Your task to perform on an android device: Open Youtube and go to the subscriptions tab Image 0: 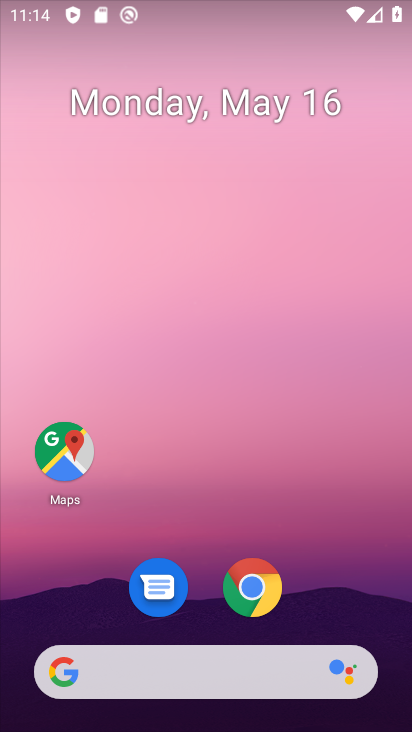
Step 0: drag from (377, 644) to (331, 71)
Your task to perform on an android device: Open Youtube and go to the subscriptions tab Image 1: 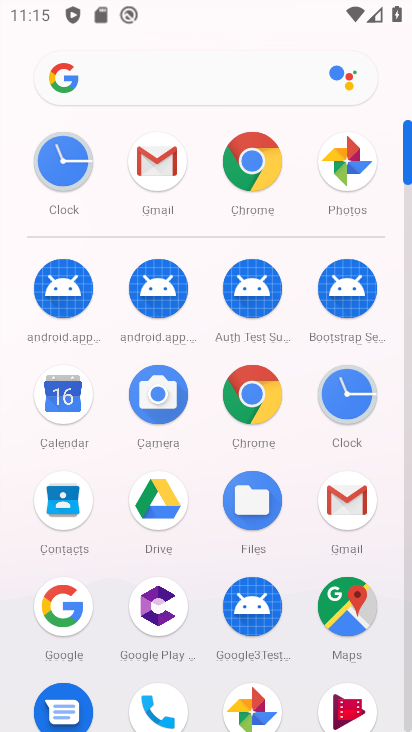
Step 1: drag from (319, 636) to (365, 66)
Your task to perform on an android device: Open Youtube and go to the subscriptions tab Image 2: 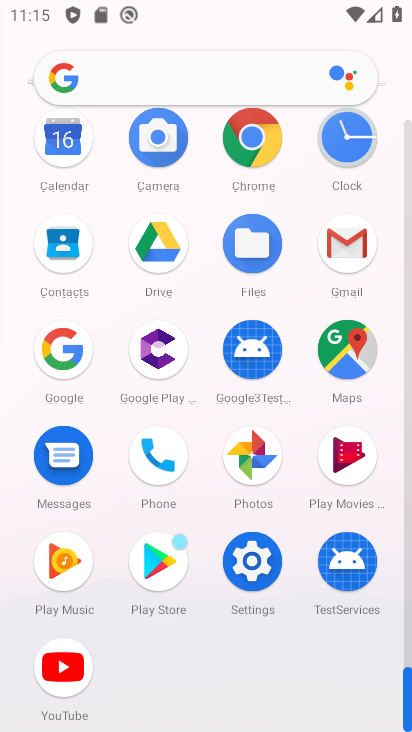
Step 2: click (52, 671)
Your task to perform on an android device: Open Youtube and go to the subscriptions tab Image 3: 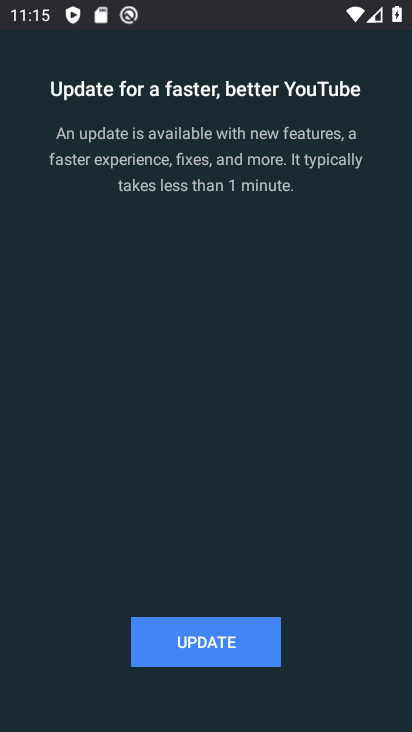
Step 3: click (189, 628)
Your task to perform on an android device: Open Youtube and go to the subscriptions tab Image 4: 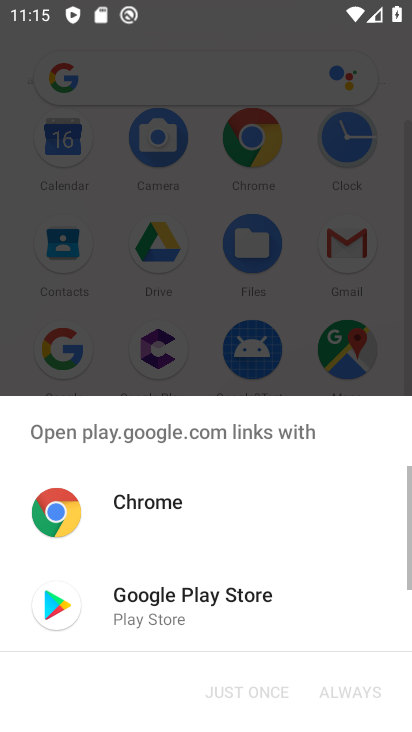
Step 4: click (155, 593)
Your task to perform on an android device: Open Youtube and go to the subscriptions tab Image 5: 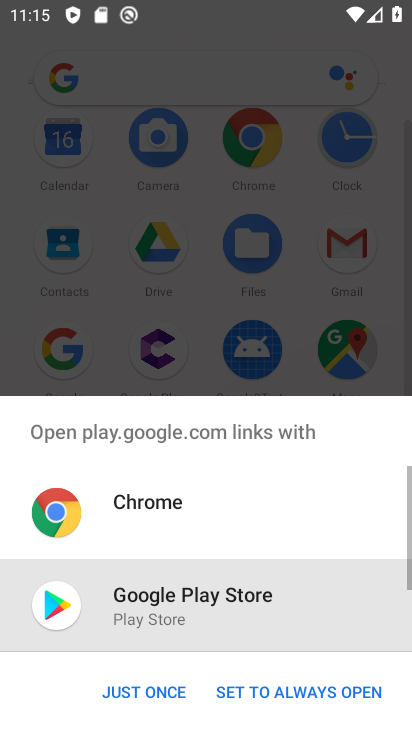
Step 5: click (138, 700)
Your task to perform on an android device: Open Youtube and go to the subscriptions tab Image 6: 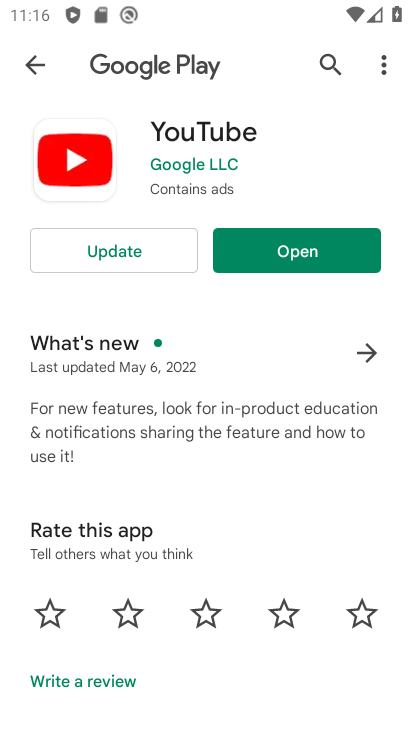
Step 6: click (102, 244)
Your task to perform on an android device: Open Youtube and go to the subscriptions tab Image 7: 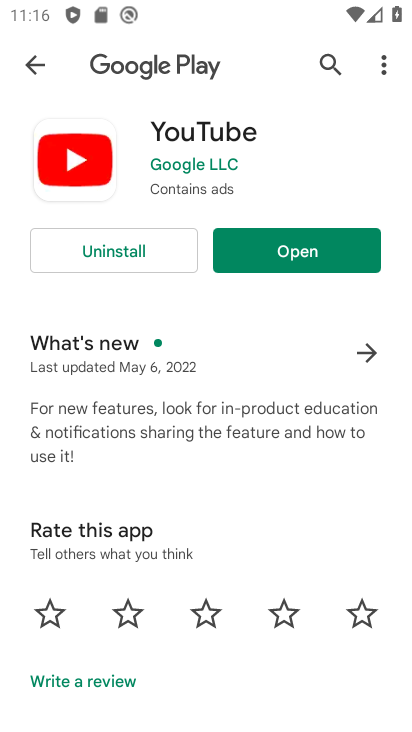
Step 7: click (368, 261)
Your task to perform on an android device: Open Youtube and go to the subscriptions tab Image 8: 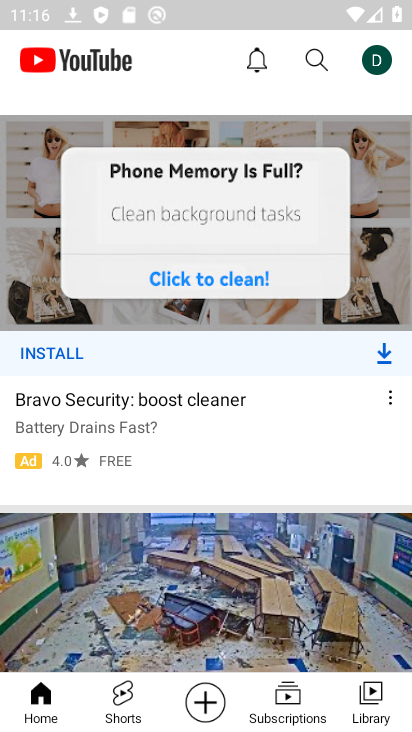
Step 8: click (288, 694)
Your task to perform on an android device: Open Youtube and go to the subscriptions tab Image 9: 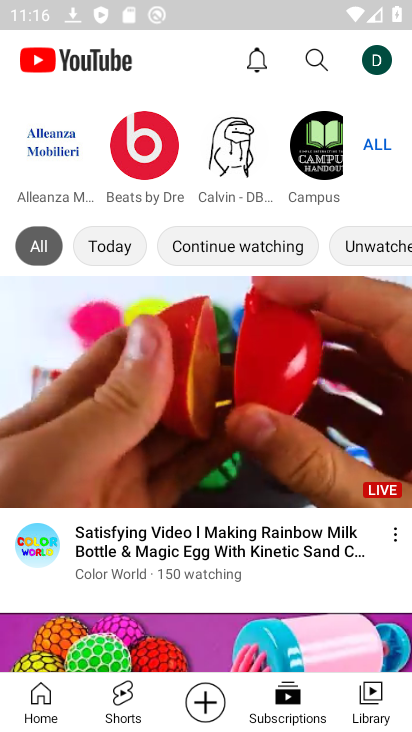
Step 9: task complete